Your task to perform on an android device: Go to Reddit.com Image 0: 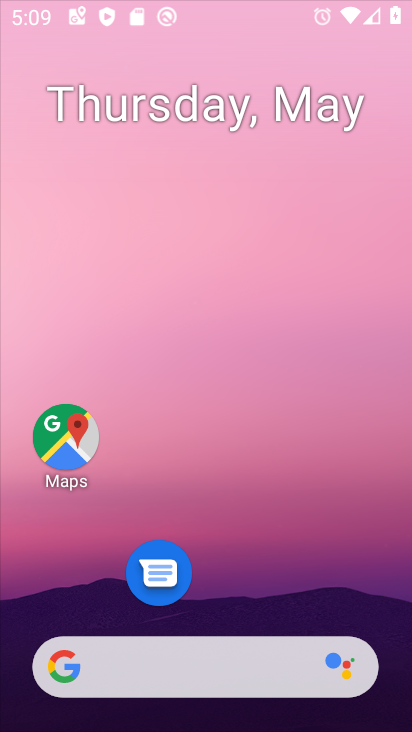
Step 0: drag from (263, 539) to (271, 191)
Your task to perform on an android device: Go to Reddit.com Image 1: 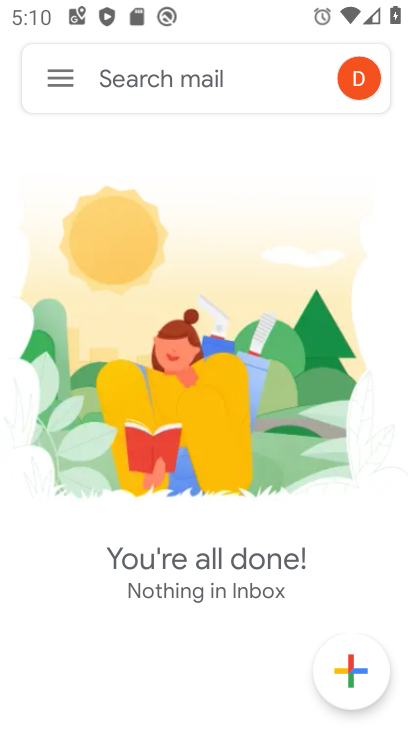
Step 1: press home button
Your task to perform on an android device: Go to Reddit.com Image 2: 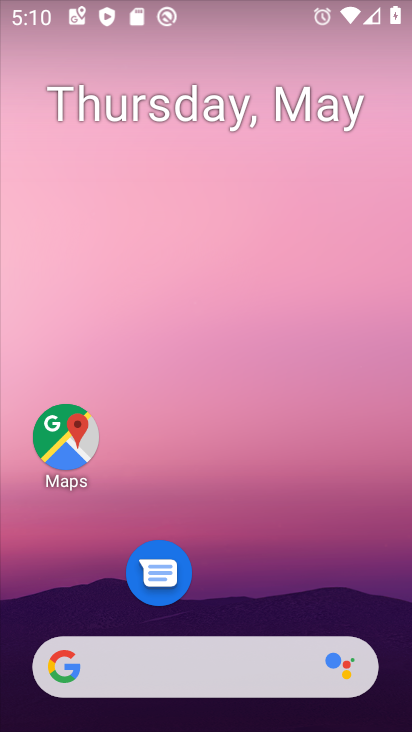
Step 2: drag from (215, 192) to (215, 146)
Your task to perform on an android device: Go to Reddit.com Image 3: 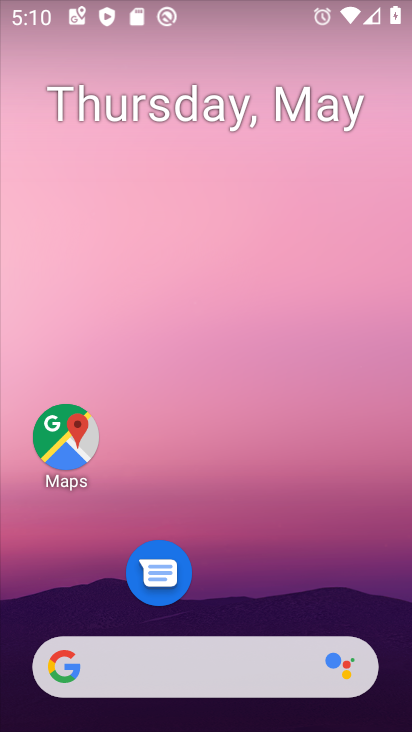
Step 3: drag from (194, 166) to (209, 2)
Your task to perform on an android device: Go to Reddit.com Image 4: 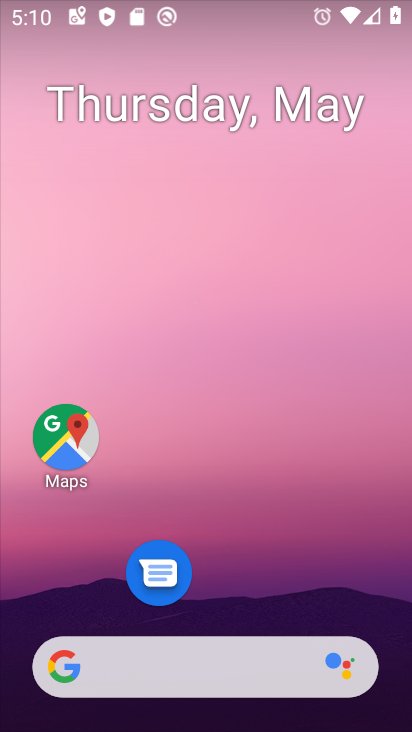
Step 4: drag from (221, 310) to (221, 20)
Your task to perform on an android device: Go to Reddit.com Image 5: 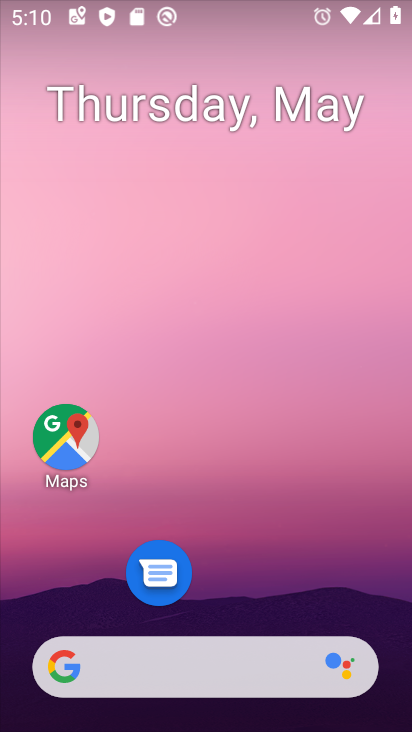
Step 5: drag from (227, 532) to (194, 26)
Your task to perform on an android device: Go to Reddit.com Image 6: 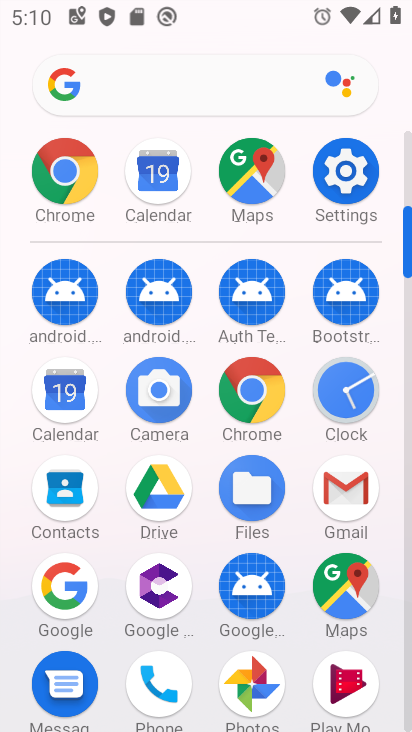
Step 6: click (59, 181)
Your task to perform on an android device: Go to Reddit.com Image 7: 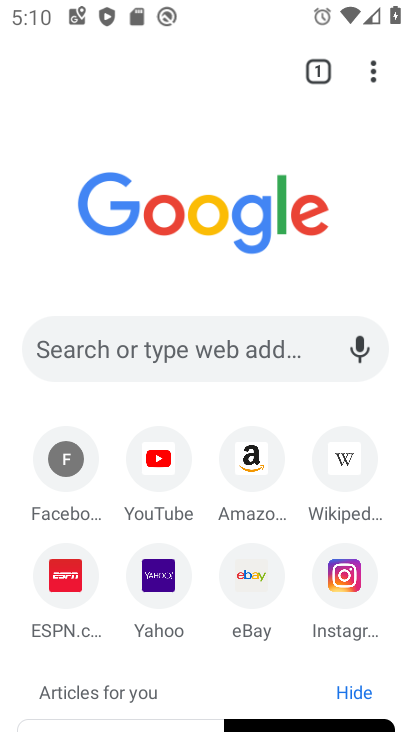
Step 7: click (150, 379)
Your task to perform on an android device: Go to Reddit.com Image 8: 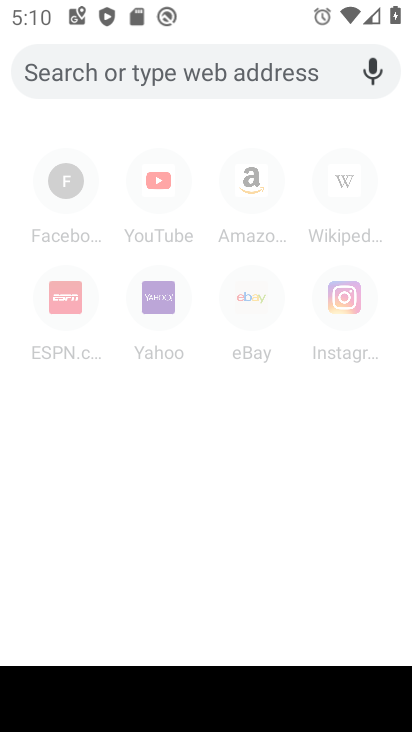
Step 8: type "reddit.com"
Your task to perform on an android device: Go to Reddit.com Image 9: 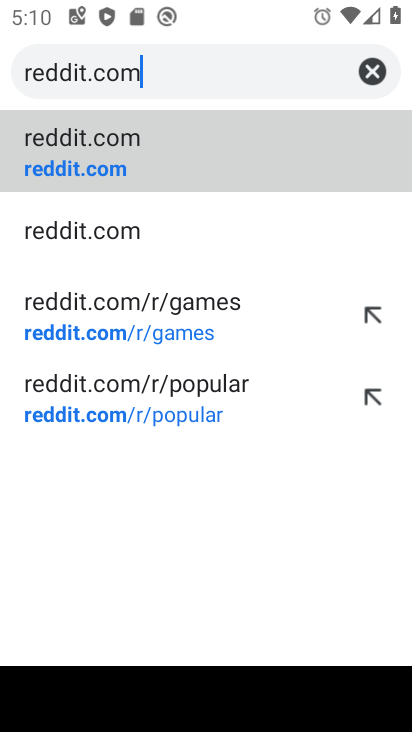
Step 9: click (114, 174)
Your task to perform on an android device: Go to Reddit.com Image 10: 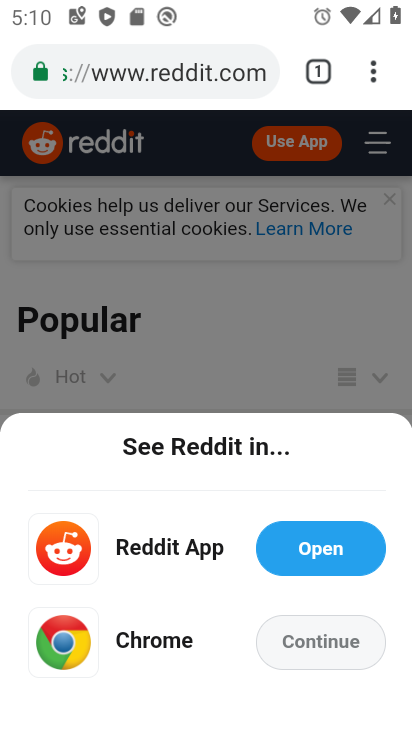
Step 10: task complete